Your task to perform on an android device: delete the emails in spam in the gmail app Image 0: 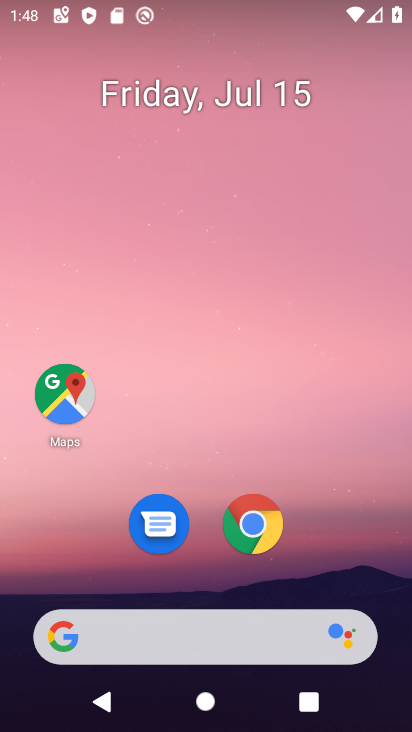
Step 0: press home button
Your task to perform on an android device: delete the emails in spam in the gmail app Image 1: 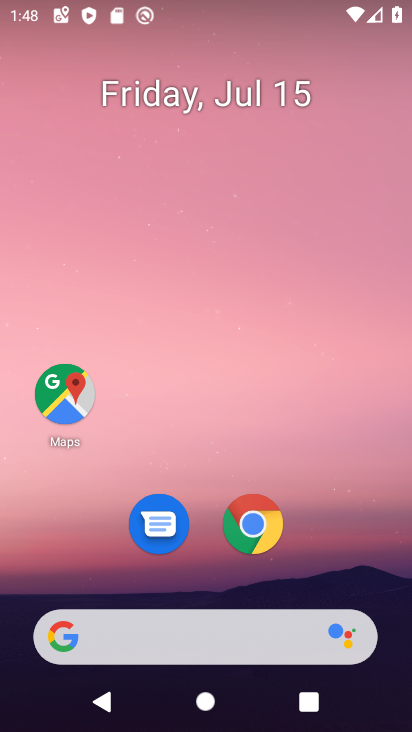
Step 1: drag from (232, 633) to (312, 187)
Your task to perform on an android device: delete the emails in spam in the gmail app Image 2: 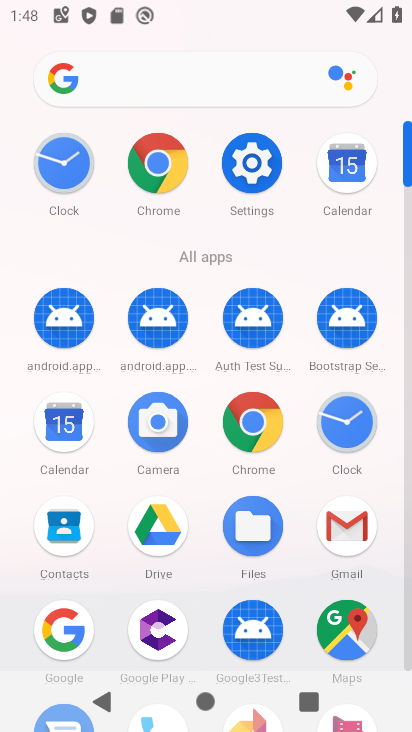
Step 2: click (346, 518)
Your task to perform on an android device: delete the emails in spam in the gmail app Image 3: 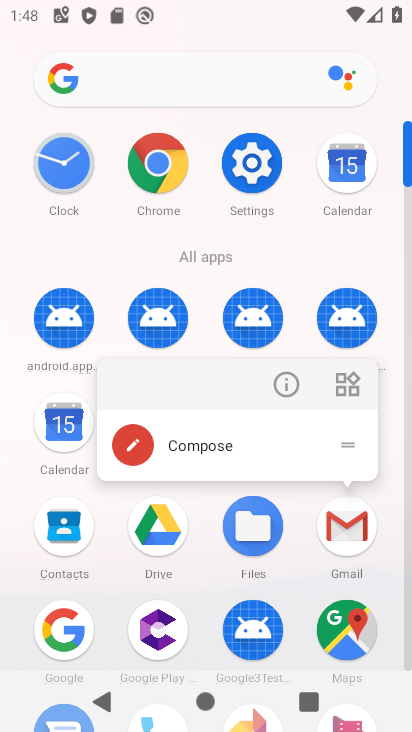
Step 3: click (345, 528)
Your task to perform on an android device: delete the emails in spam in the gmail app Image 4: 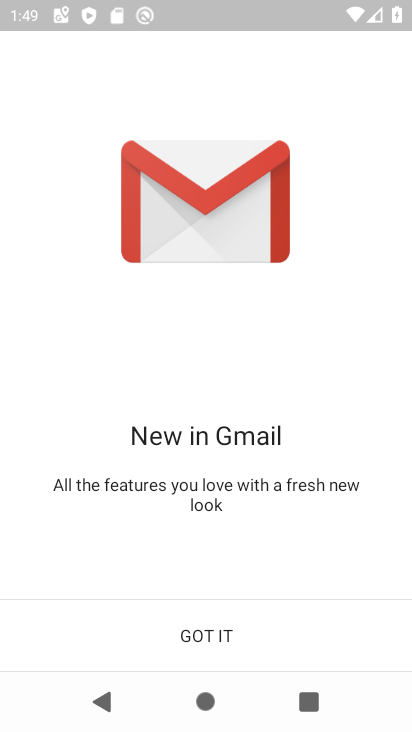
Step 4: click (205, 648)
Your task to perform on an android device: delete the emails in spam in the gmail app Image 5: 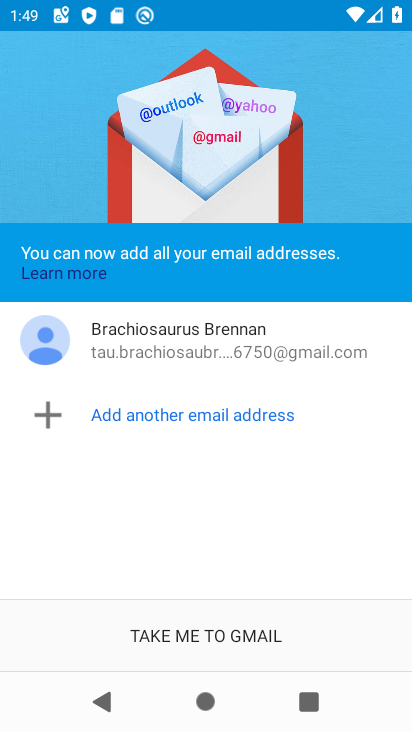
Step 5: click (204, 640)
Your task to perform on an android device: delete the emails in spam in the gmail app Image 6: 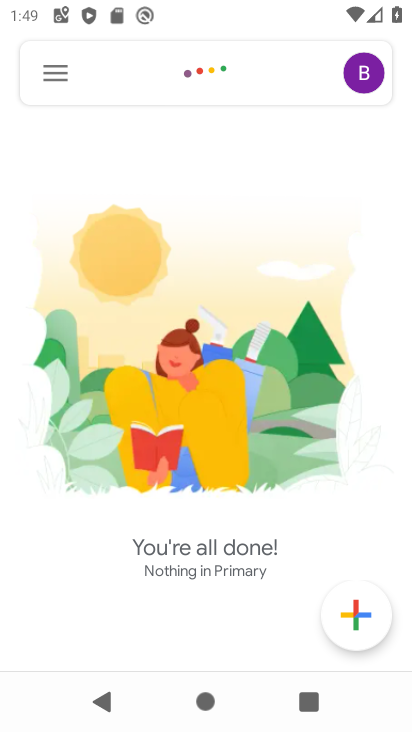
Step 6: click (52, 78)
Your task to perform on an android device: delete the emails in spam in the gmail app Image 7: 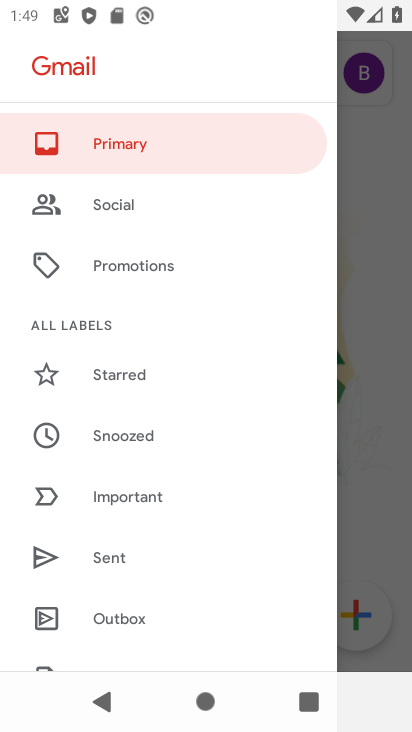
Step 7: drag from (170, 585) to (260, 151)
Your task to perform on an android device: delete the emails in spam in the gmail app Image 8: 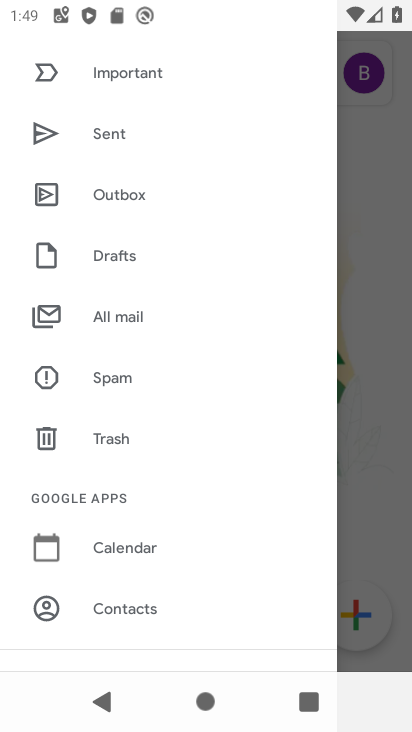
Step 8: click (112, 377)
Your task to perform on an android device: delete the emails in spam in the gmail app Image 9: 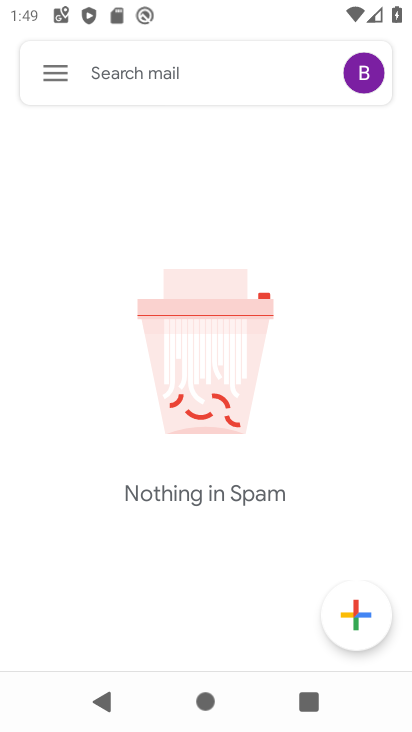
Step 9: task complete